Your task to perform on an android device: turn off notifications in google photos Image 0: 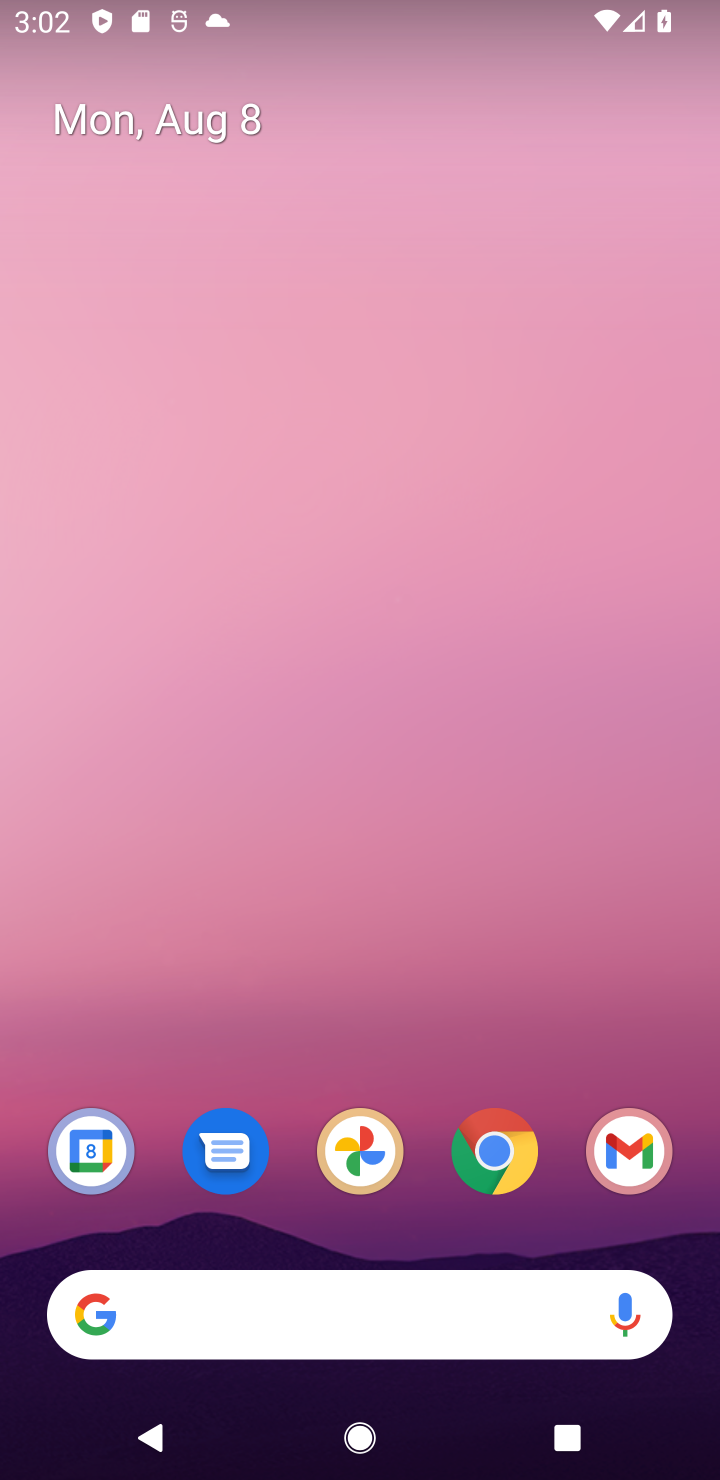
Step 0: click (358, 1119)
Your task to perform on an android device: turn off notifications in google photos Image 1: 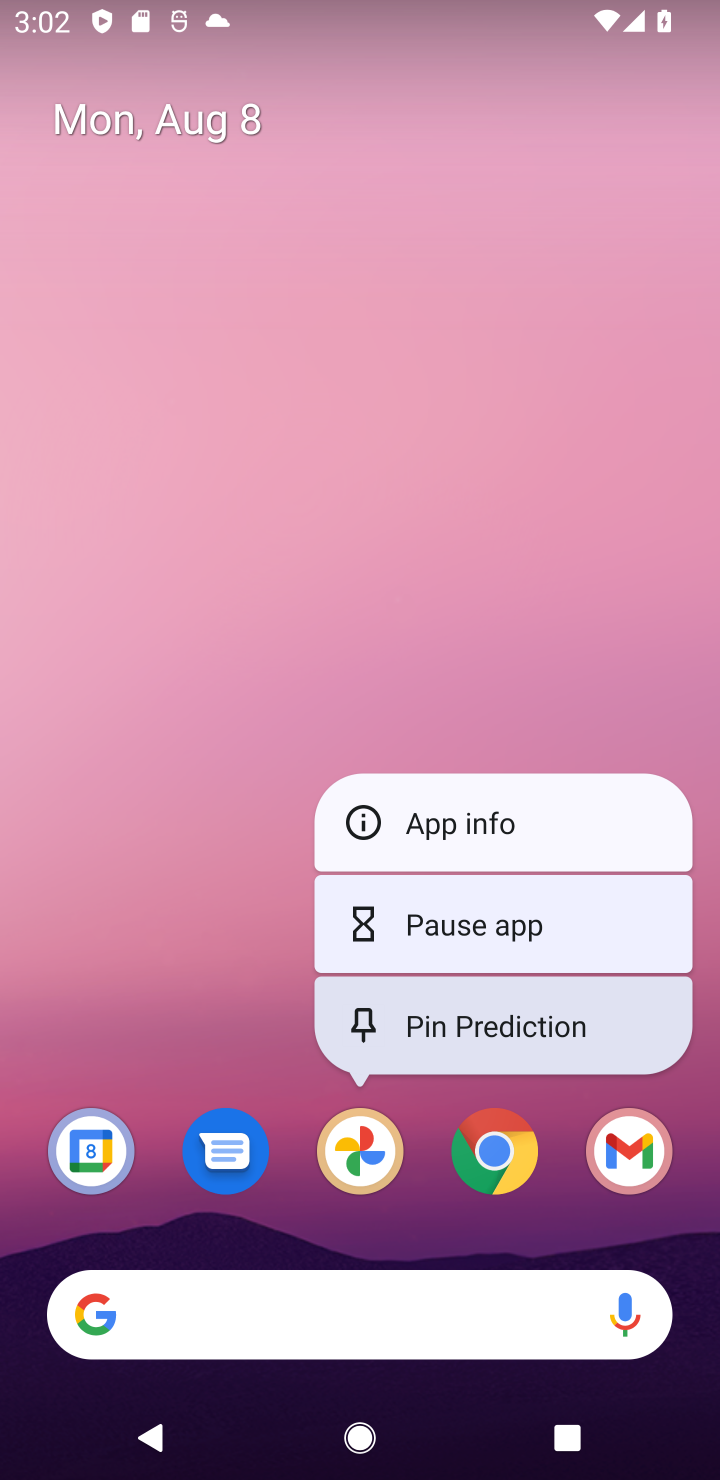
Step 1: click (356, 1138)
Your task to perform on an android device: turn off notifications in google photos Image 2: 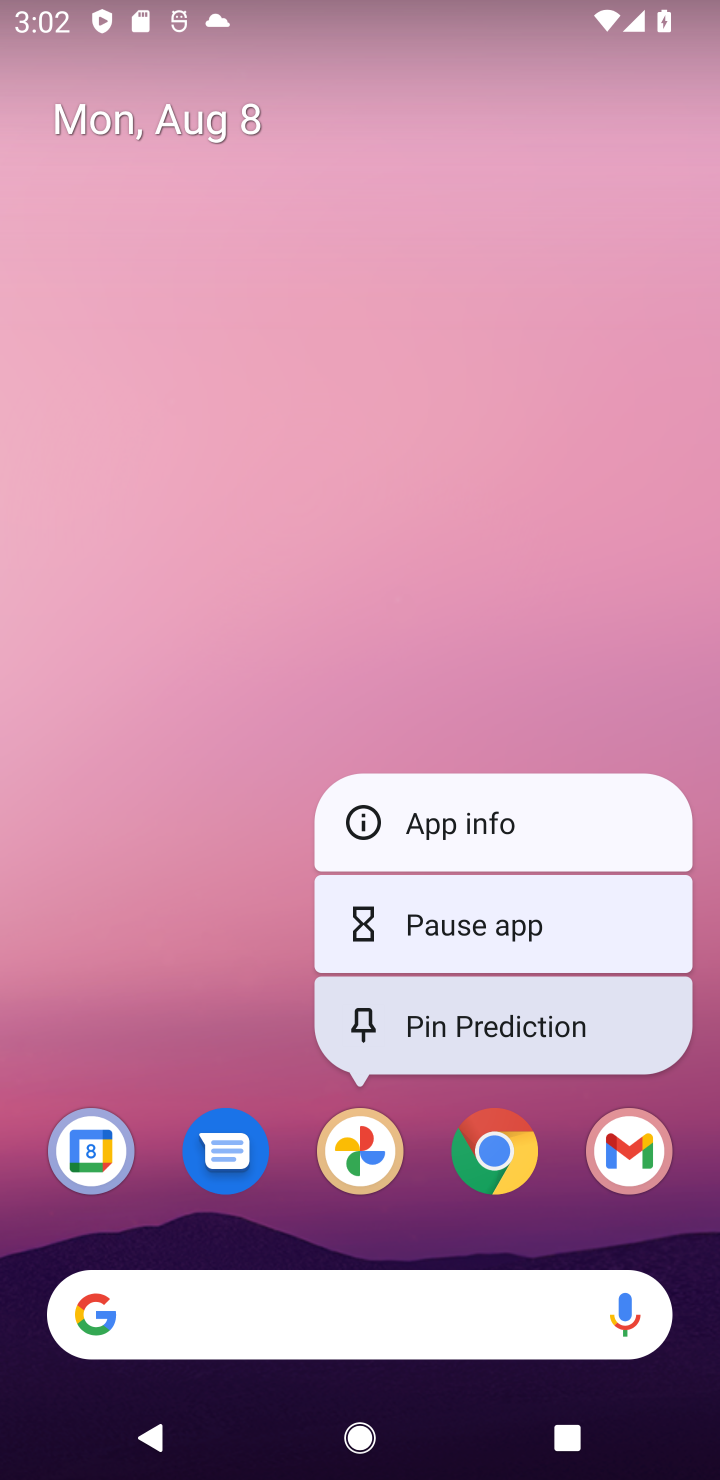
Step 2: click (352, 1185)
Your task to perform on an android device: turn off notifications in google photos Image 3: 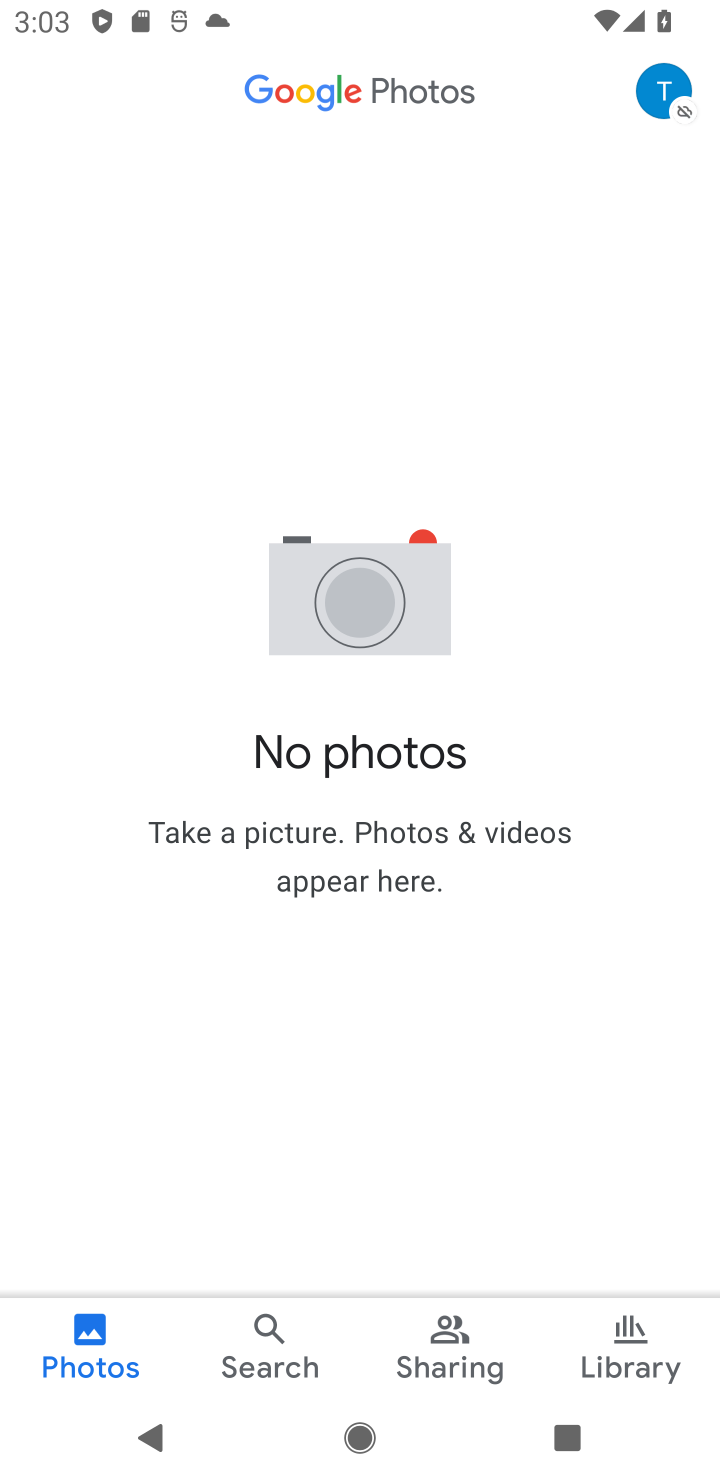
Step 3: click (662, 104)
Your task to perform on an android device: turn off notifications in google photos Image 4: 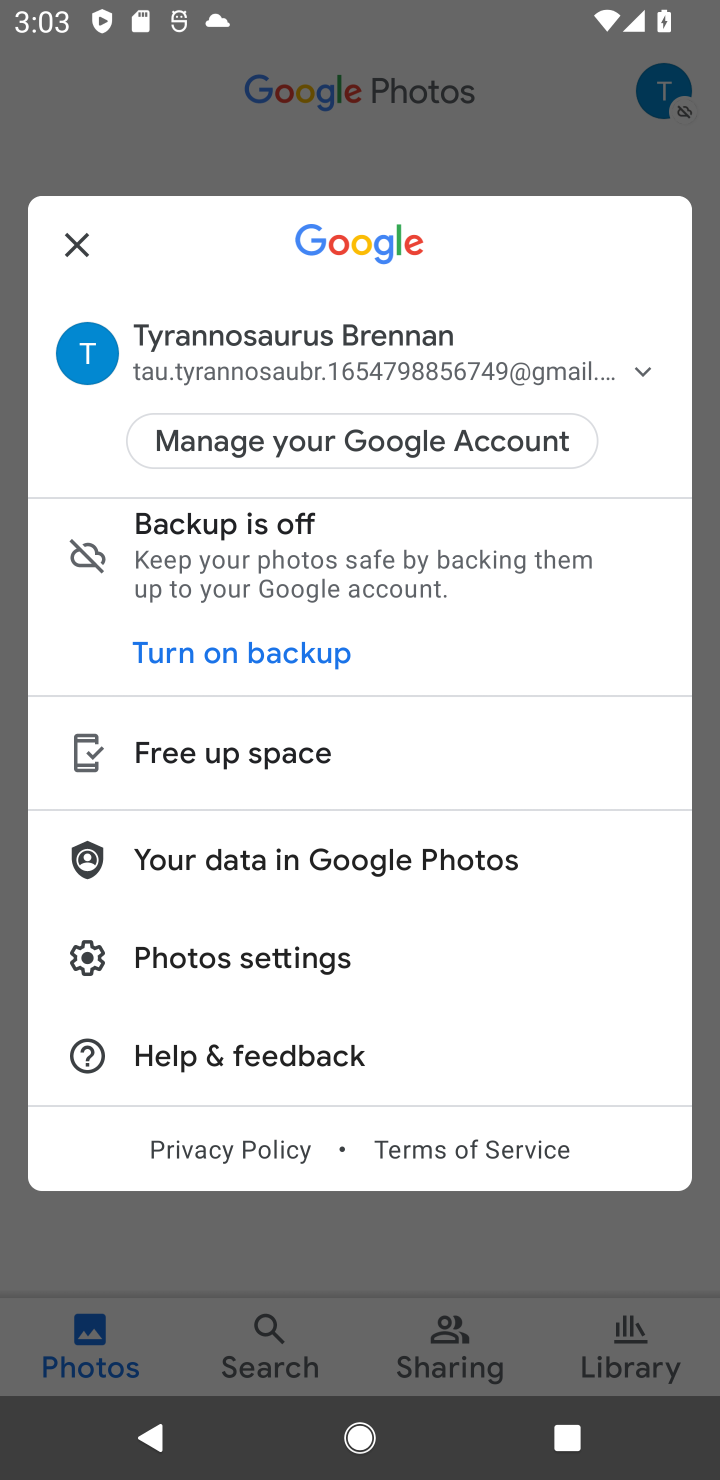
Step 4: click (216, 965)
Your task to perform on an android device: turn off notifications in google photos Image 5: 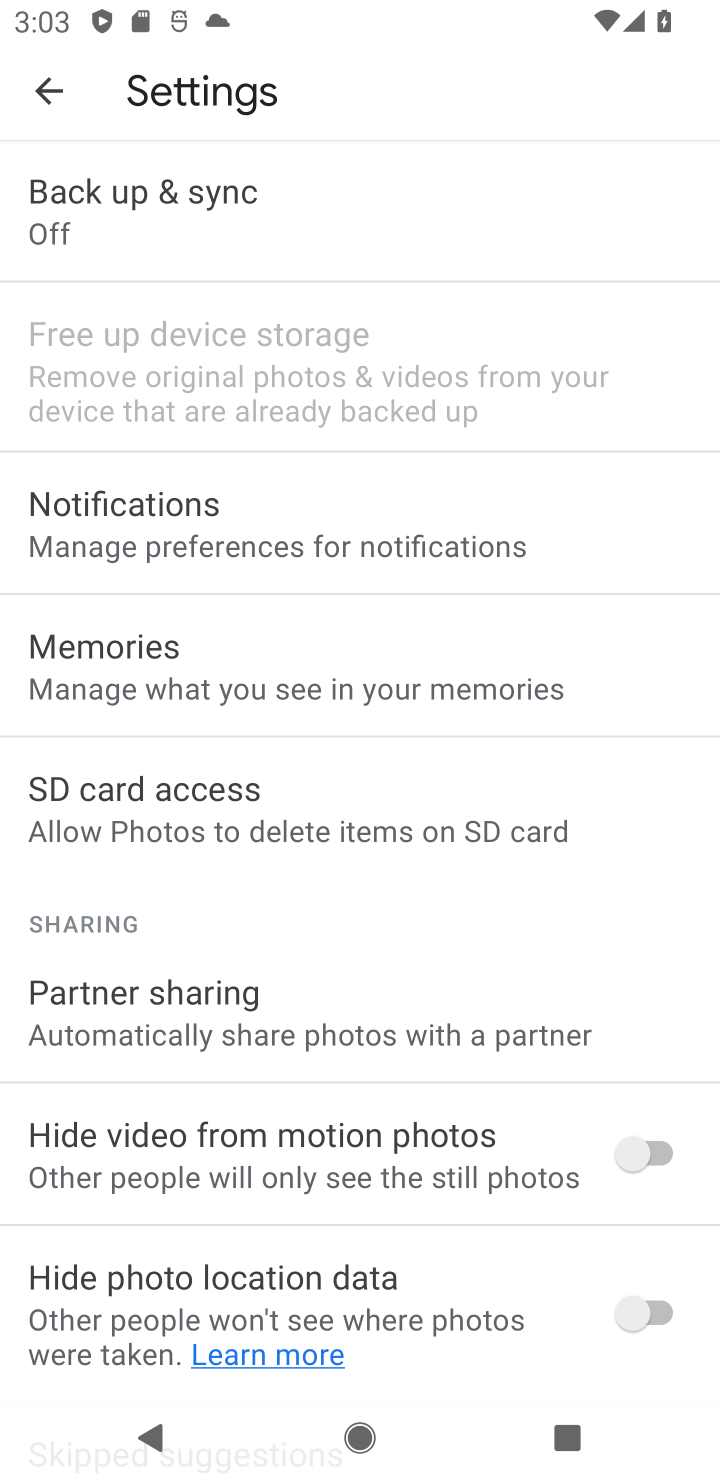
Step 5: click (220, 541)
Your task to perform on an android device: turn off notifications in google photos Image 6: 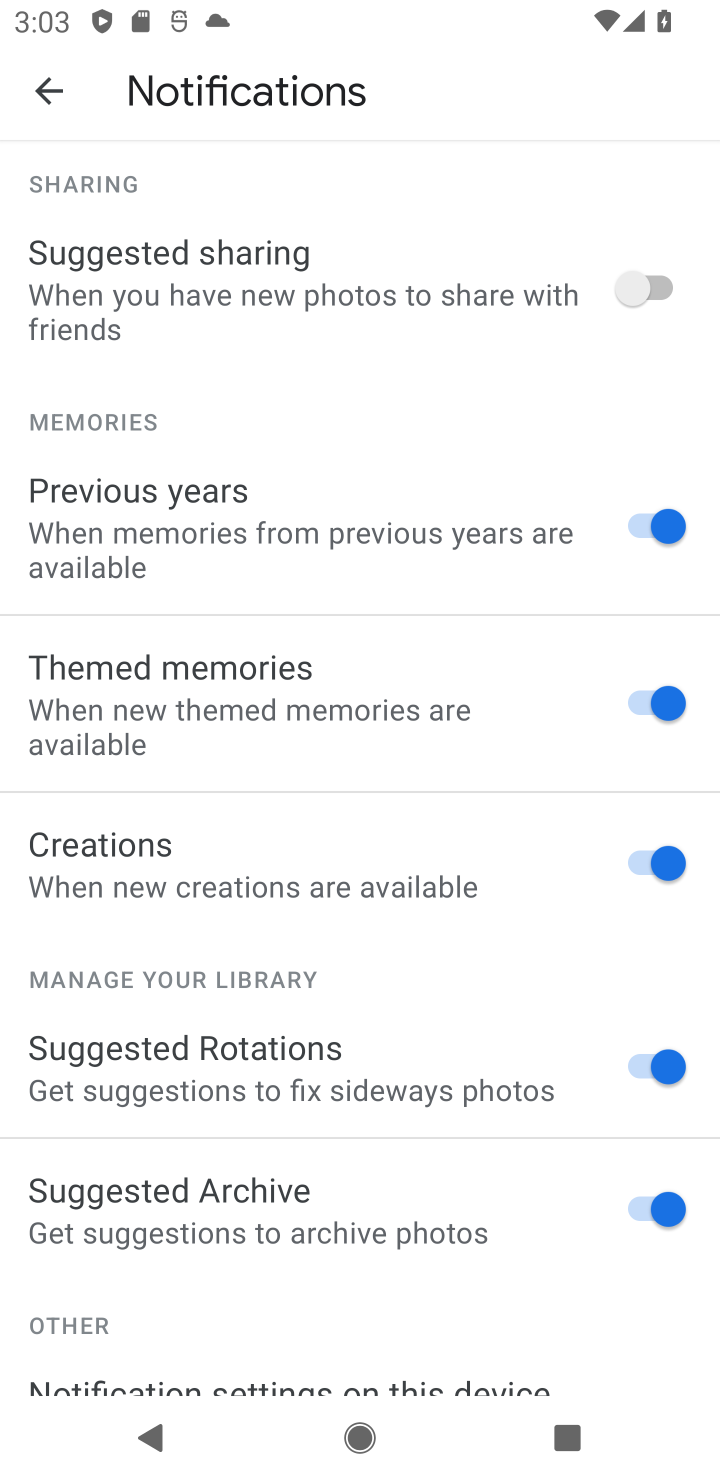
Step 6: drag from (296, 1186) to (356, 670)
Your task to perform on an android device: turn off notifications in google photos Image 7: 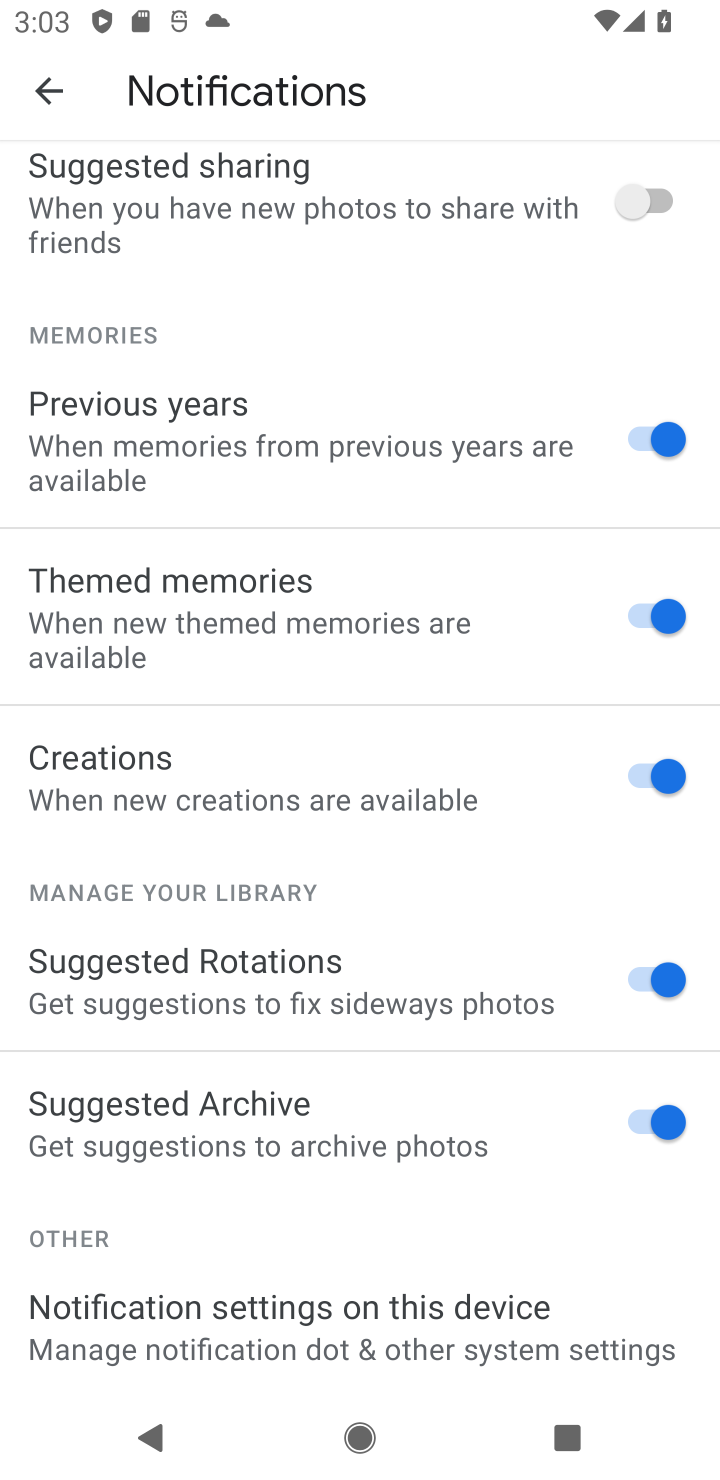
Step 7: click (320, 1338)
Your task to perform on an android device: turn off notifications in google photos Image 8: 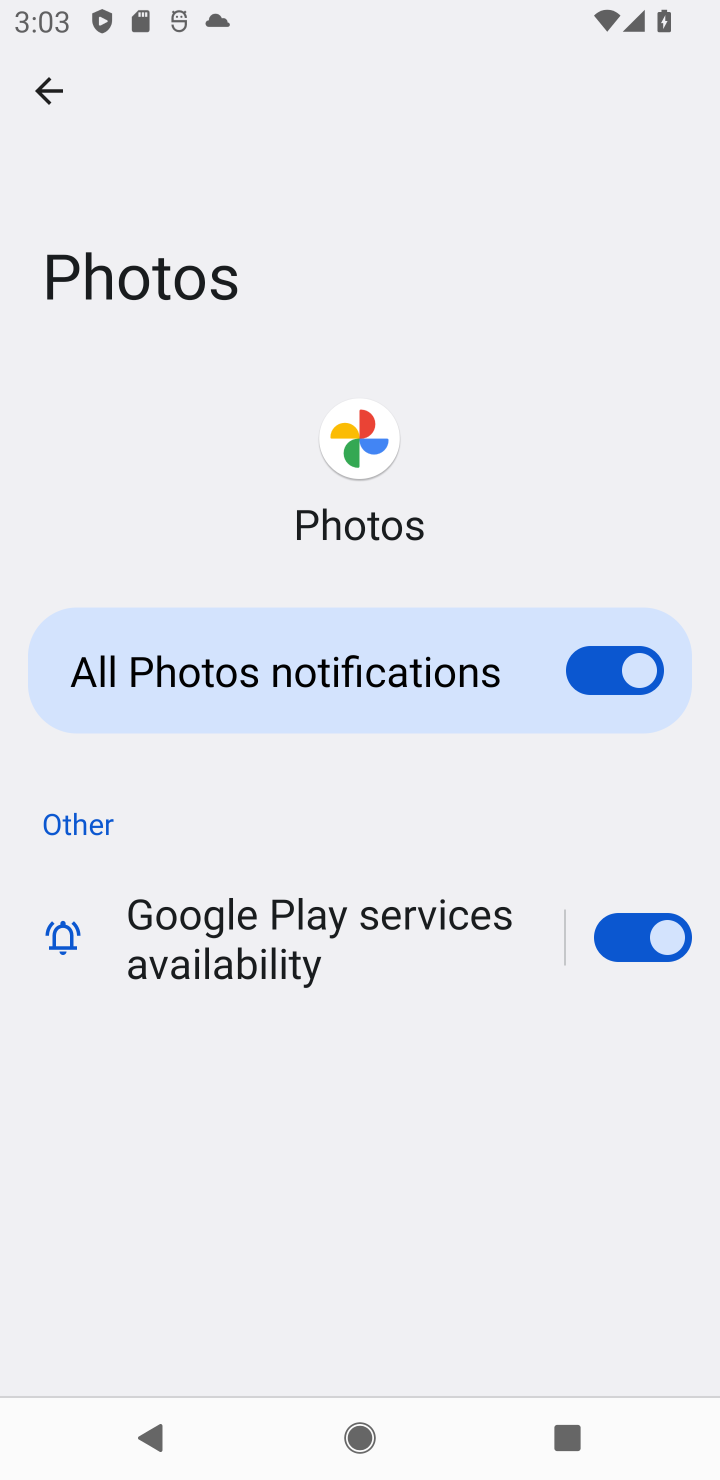
Step 8: click (577, 670)
Your task to perform on an android device: turn off notifications in google photos Image 9: 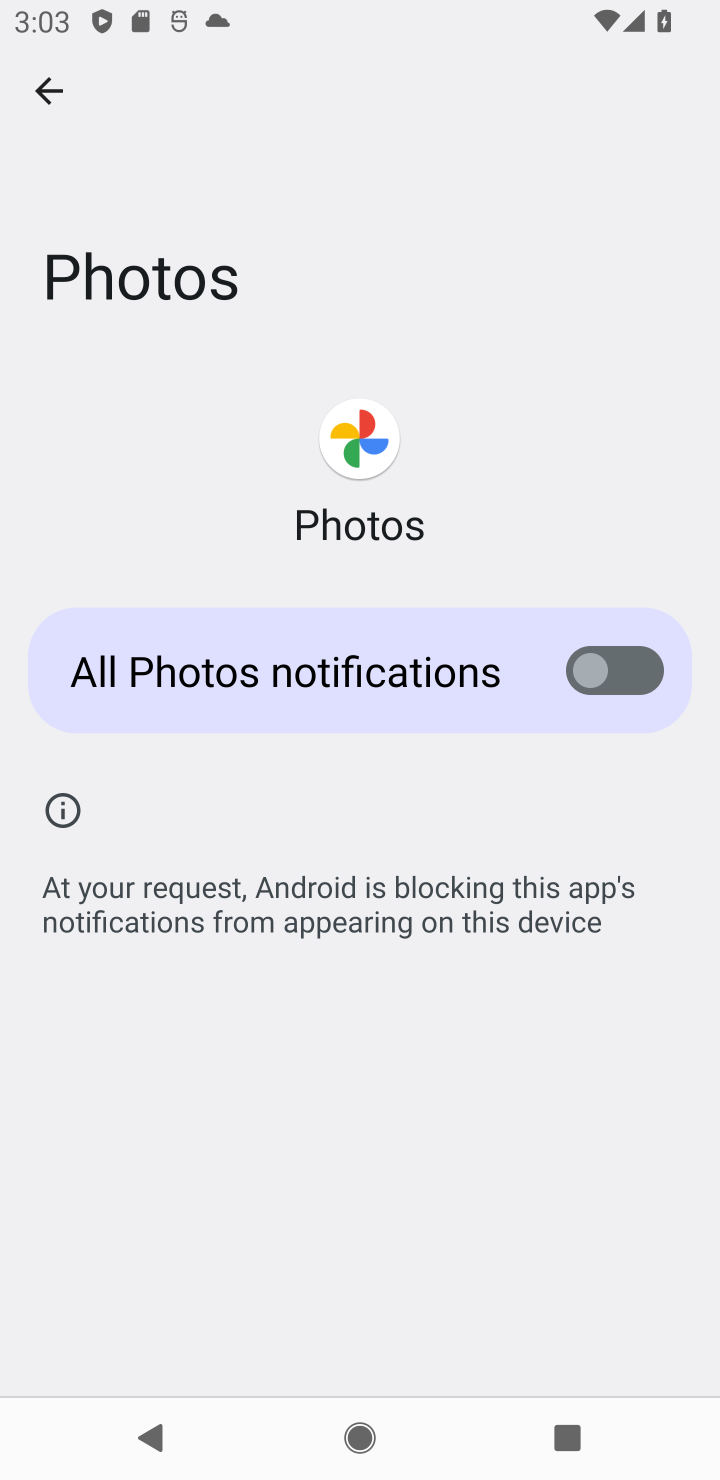
Step 9: task complete